Your task to perform on an android device: change alarm snooze length Image 0: 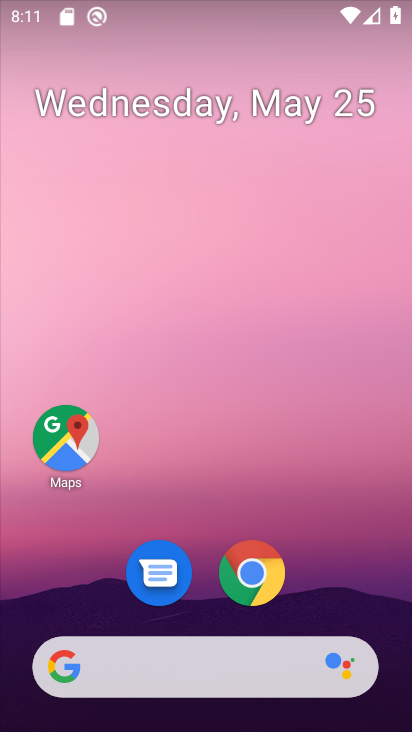
Step 0: drag from (393, 708) to (305, 78)
Your task to perform on an android device: change alarm snooze length Image 1: 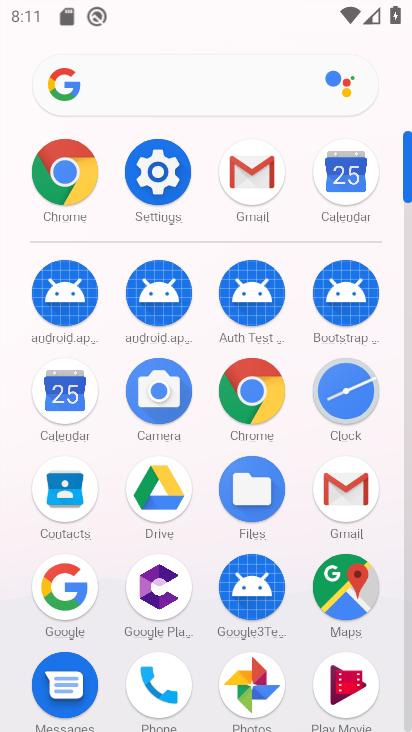
Step 1: click (341, 366)
Your task to perform on an android device: change alarm snooze length Image 2: 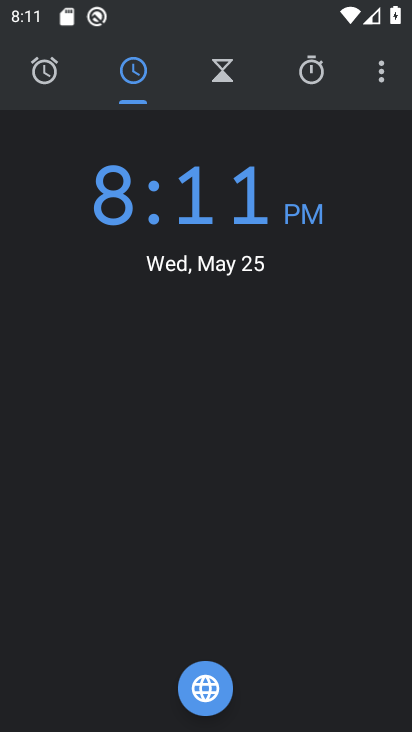
Step 2: click (377, 70)
Your task to perform on an android device: change alarm snooze length Image 3: 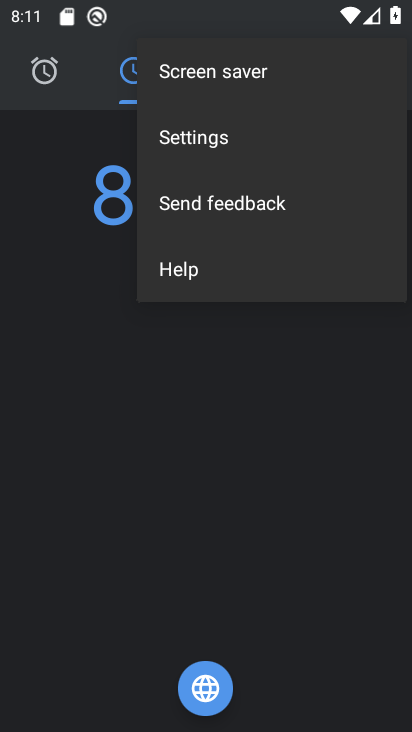
Step 3: click (203, 136)
Your task to perform on an android device: change alarm snooze length Image 4: 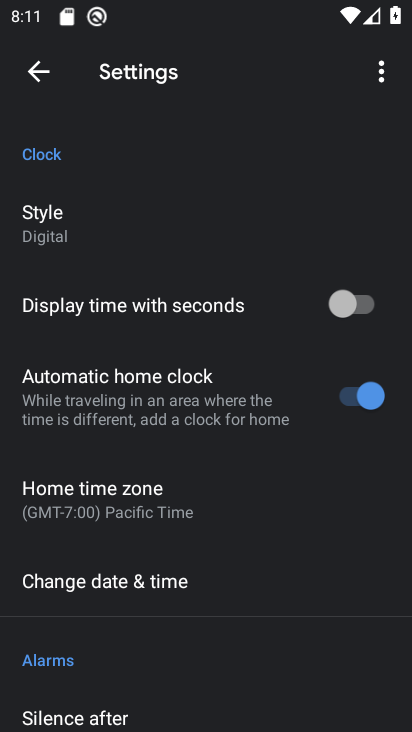
Step 4: drag from (229, 680) to (212, 286)
Your task to perform on an android device: change alarm snooze length Image 5: 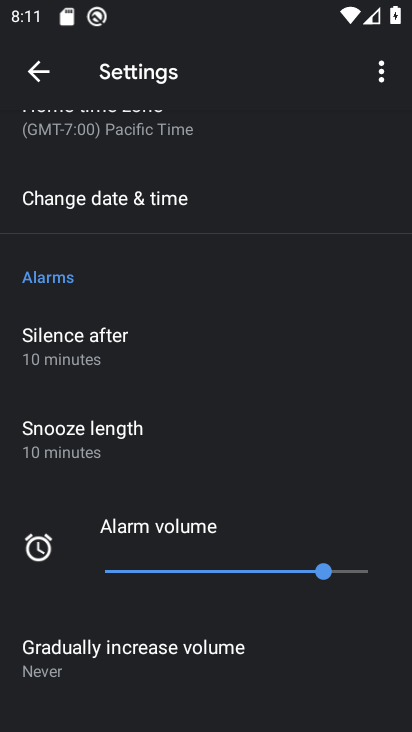
Step 5: click (76, 429)
Your task to perform on an android device: change alarm snooze length Image 6: 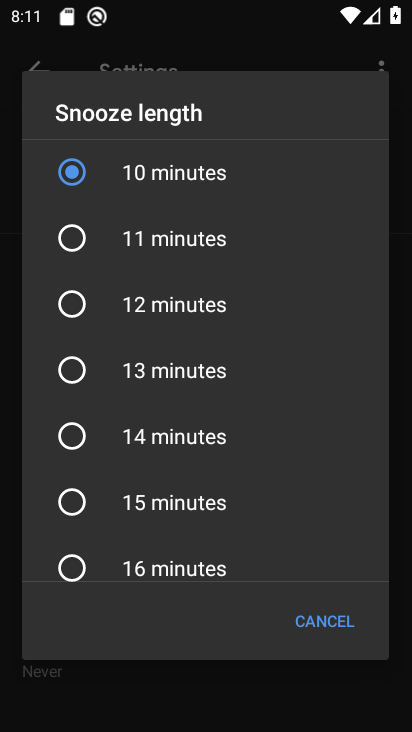
Step 6: click (74, 302)
Your task to perform on an android device: change alarm snooze length Image 7: 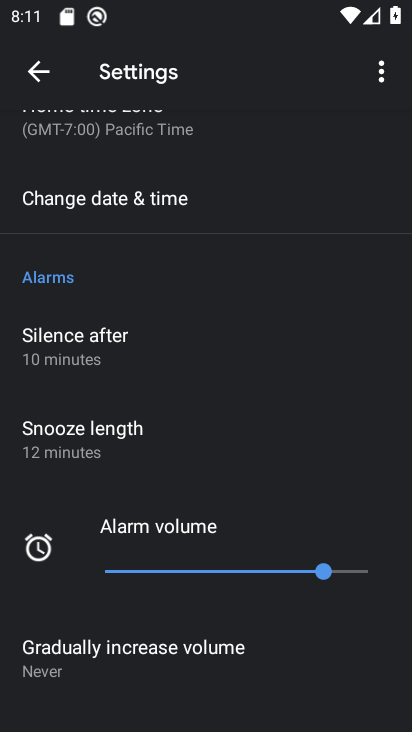
Step 7: task complete